Your task to perform on an android device: Go to settings Image 0: 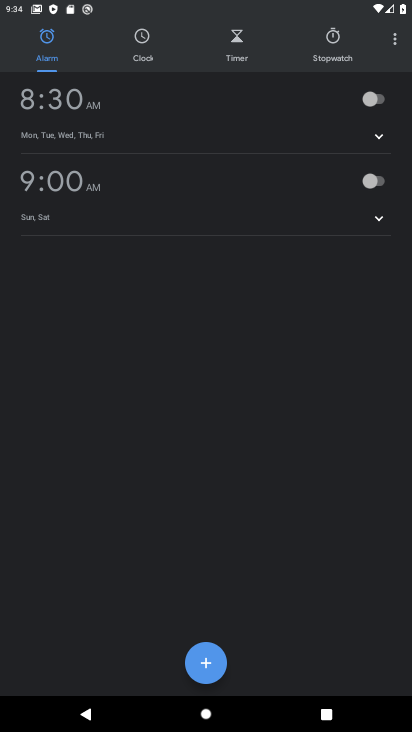
Step 0: press home button
Your task to perform on an android device: Go to settings Image 1: 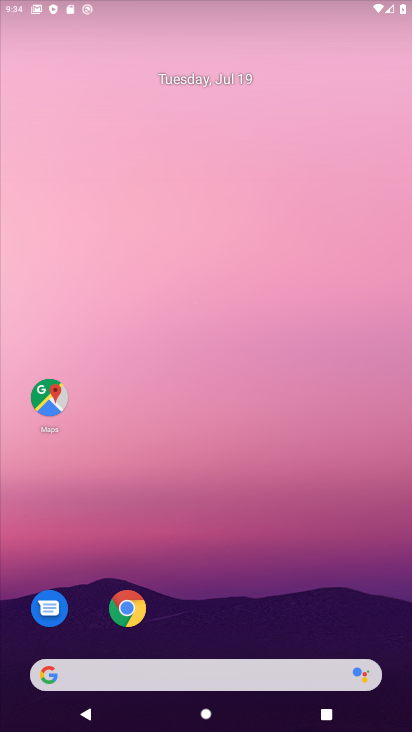
Step 1: drag from (306, 591) to (208, 256)
Your task to perform on an android device: Go to settings Image 2: 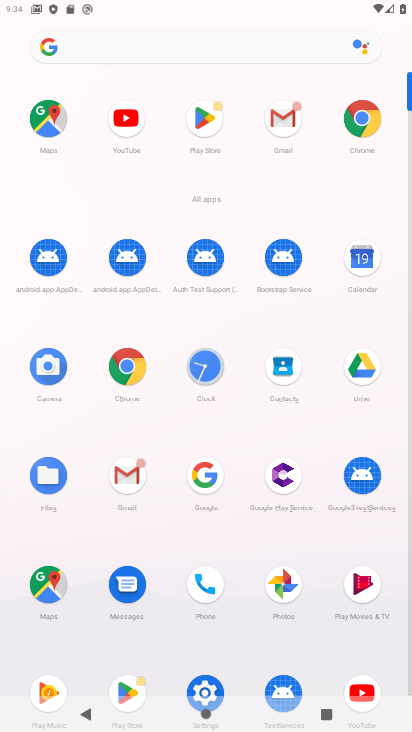
Step 2: click (208, 678)
Your task to perform on an android device: Go to settings Image 3: 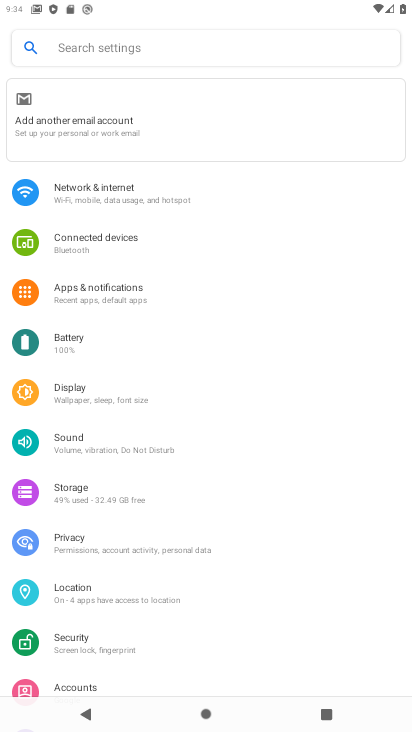
Step 3: task complete